Your task to perform on an android device: Open ESPN.com Image 0: 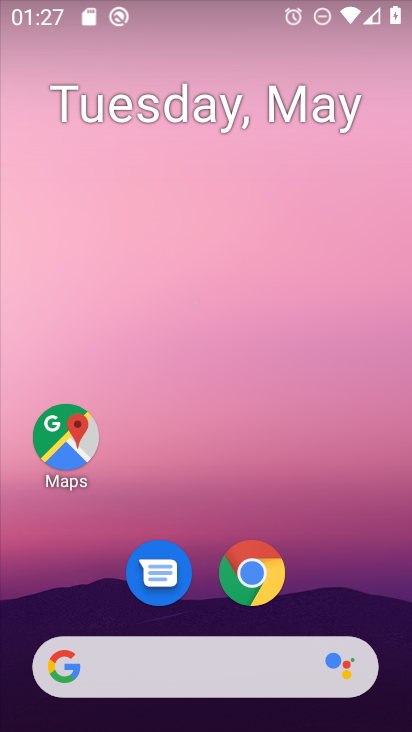
Step 0: click (231, 666)
Your task to perform on an android device: Open ESPN.com Image 1: 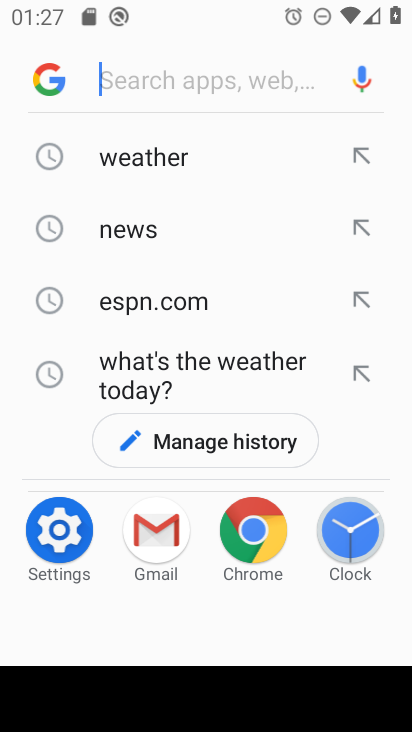
Step 1: click (211, 296)
Your task to perform on an android device: Open ESPN.com Image 2: 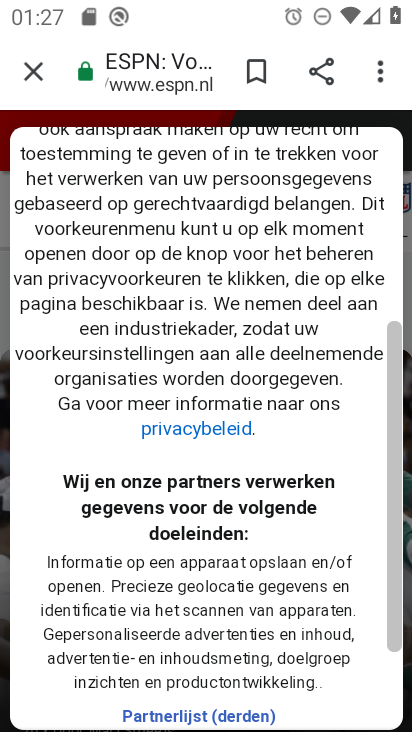
Step 2: task complete